Your task to perform on an android device: turn on javascript in the chrome app Image 0: 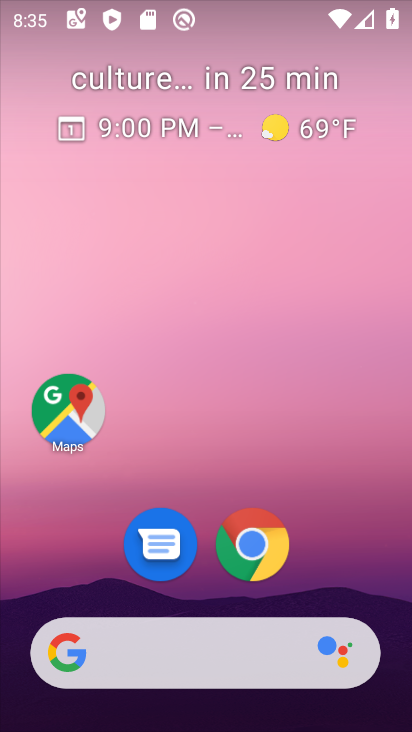
Step 0: drag from (217, 582) to (257, 182)
Your task to perform on an android device: turn on javascript in the chrome app Image 1: 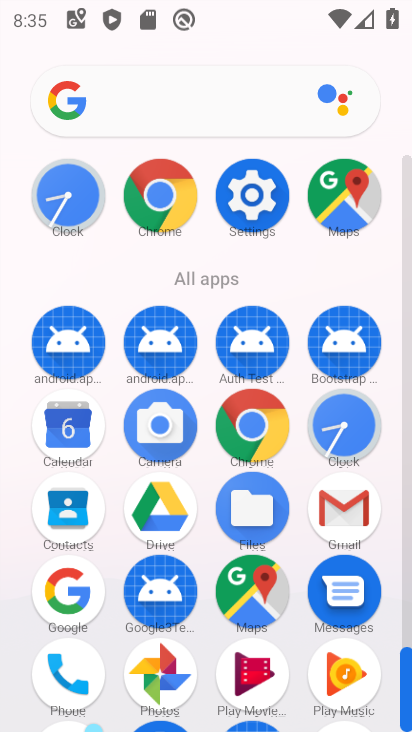
Step 1: click (161, 180)
Your task to perform on an android device: turn on javascript in the chrome app Image 2: 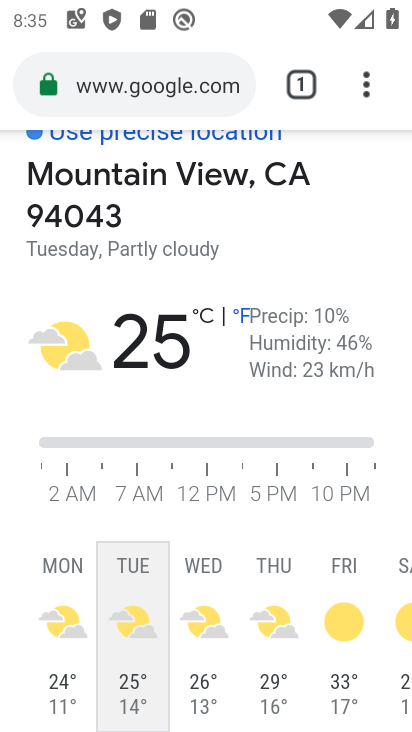
Step 2: click (370, 86)
Your task to perform on an android device: turn on javascript in the chrome app Image 3: 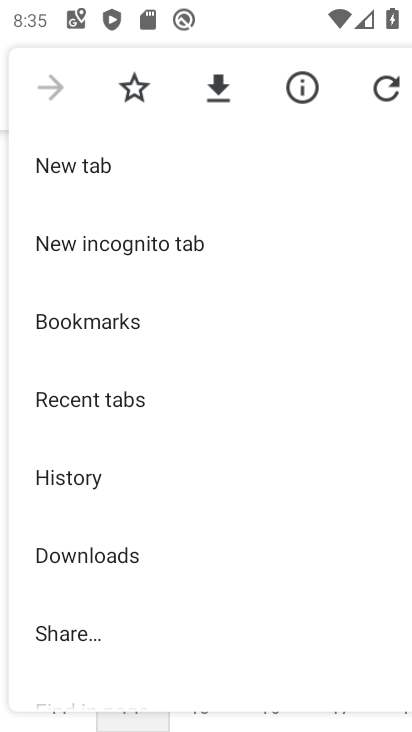
Step 3: drag from (149, 557) to (149, 160)
Your task to perform on an android device: turn on javascript in the chrome app Image 4: 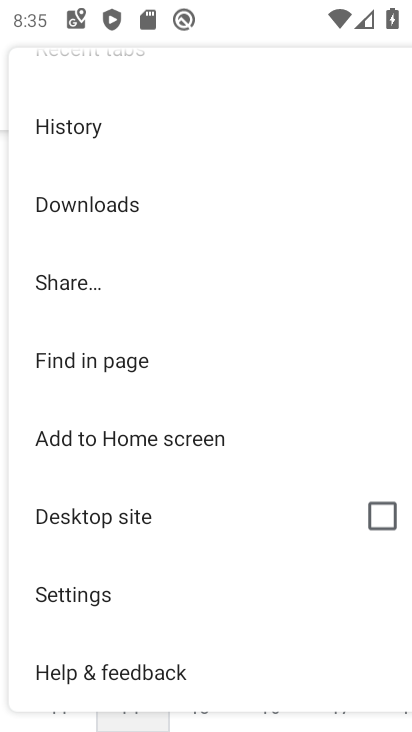
Step 4: click (90, 601)
Your task to perform on an android device: turn on javascript in the chrome app Image 5: 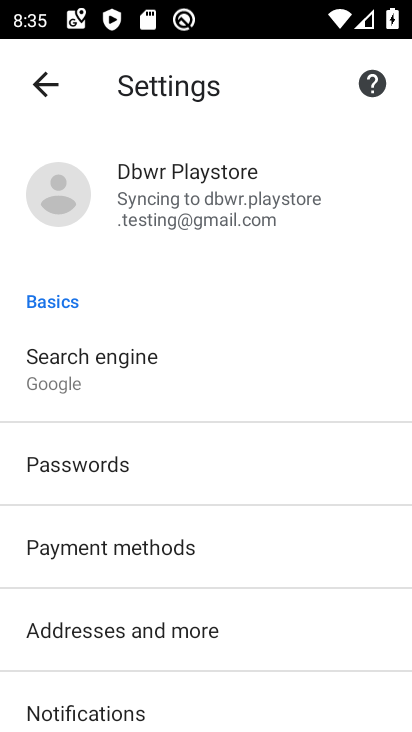
Step 5: drag from (74, 666) to (142, 293)
Your task to perform on an android device: turn on javascript in the chrome app Image 6: 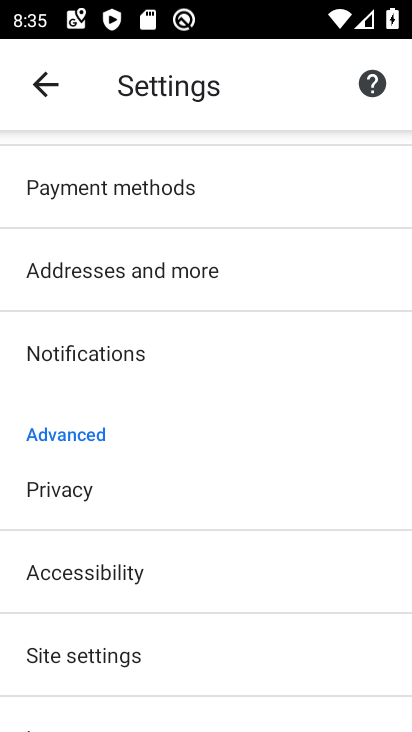
Step 6: click (93, 644)
Your task to perform on an android device: turn on javascript in the chrome app Image 7: 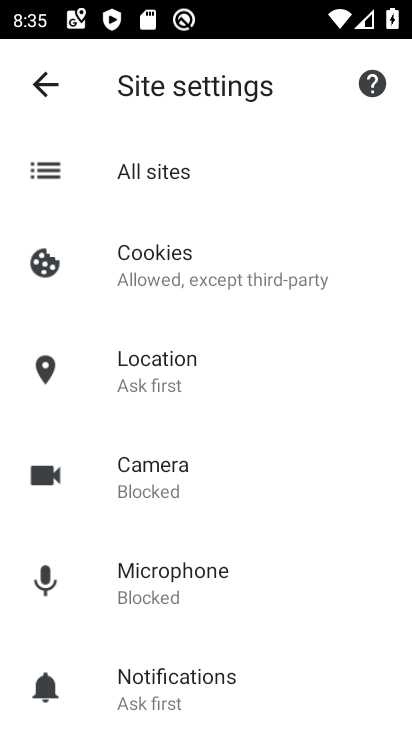
Step 7: drag from (189, 616) to (210, 276)
Your task to perform on an android device: turn on javascript in the chrome app Image 8: 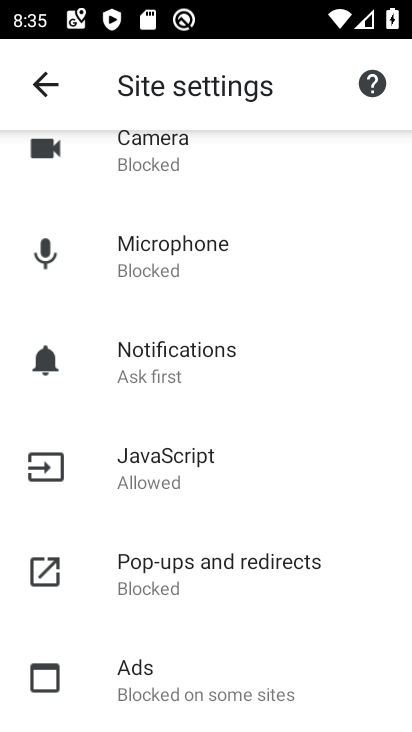
Step 8: click (157, 474)
Your task to perform on an android device: turn on javascript in the chrome app Image 9: 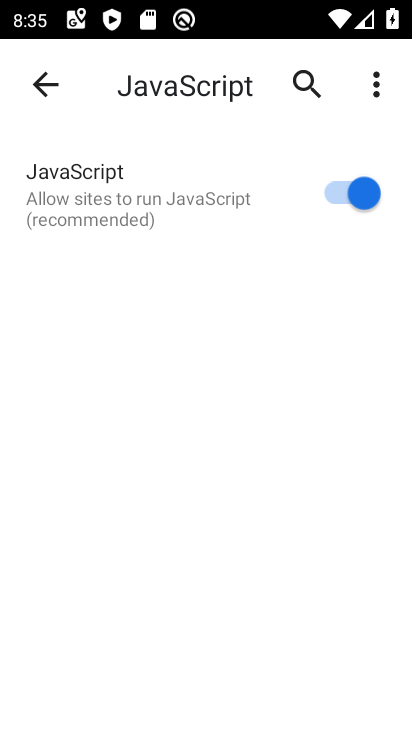
Step 9: task complete